Your task to perform on an android device: Open the phone app and click the voicemail tab. Image 0: 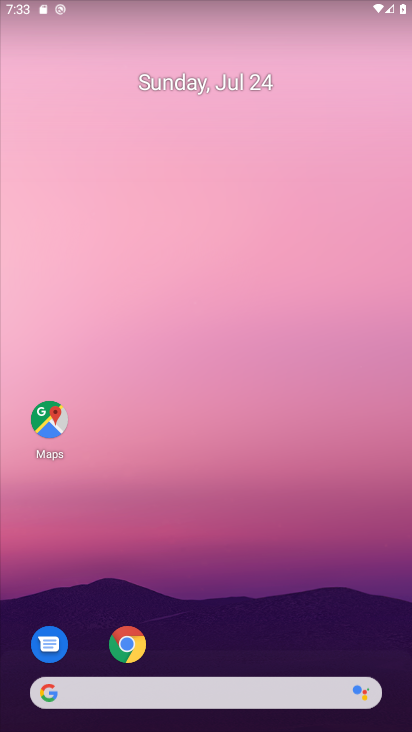
Step 0: drag from (321, 632) to (305, 16)
Your task to perform on an android device: Open the phone app and click the voicemail tab. Image 1: 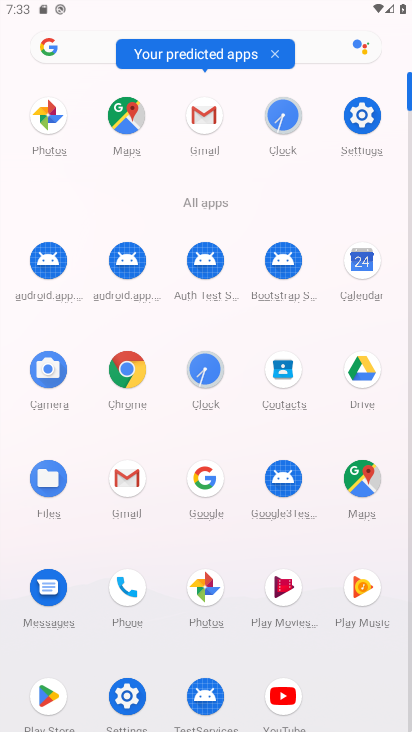
Step 1: click (126, 593)
Your task to perform on an android device: Open the phone app and click the voicemail tab. Image 2: 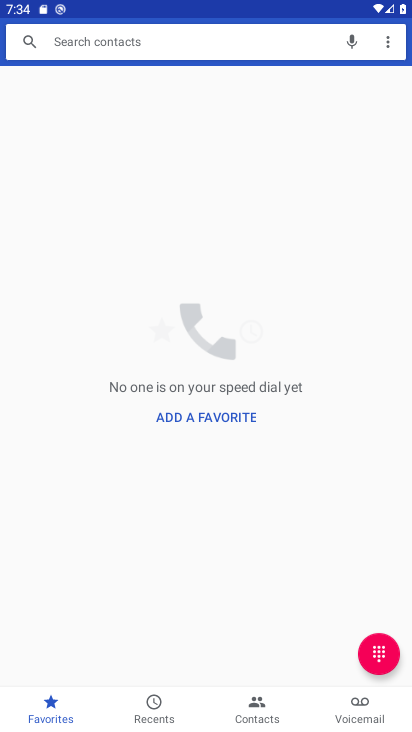
Step 2: click (357, 704)
Your task to perform on an android device: Open the phone app and click the voicemail tab. Image 3: 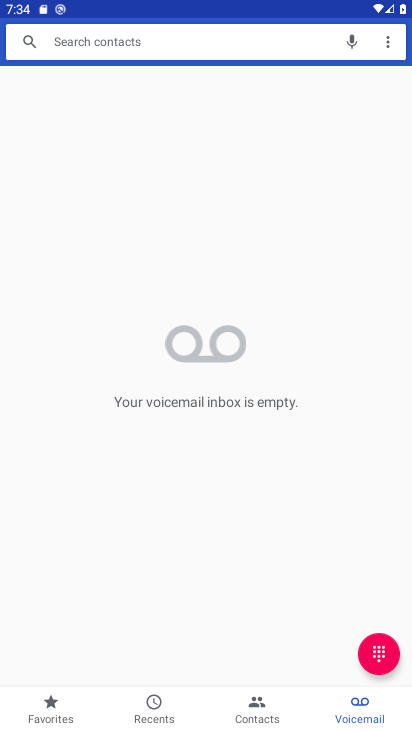
Step 3: task complete